Your task to perform on an android device: Open location settings Image 0: 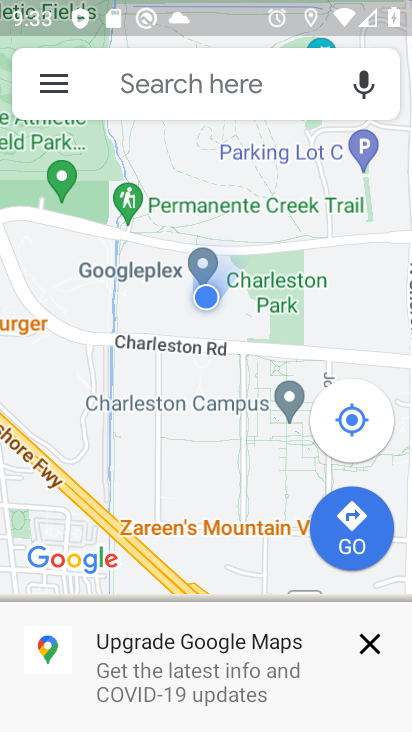
Step 0: press home button
Your task to perform on an android device: Open location settings Image 1: 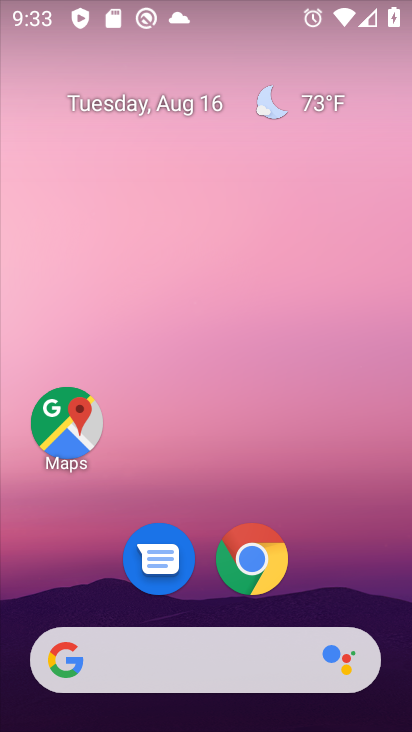
Step 1: drag from (169, 671) to (219, 87)
Your task to perform on an android device: Open location settings Image 2: 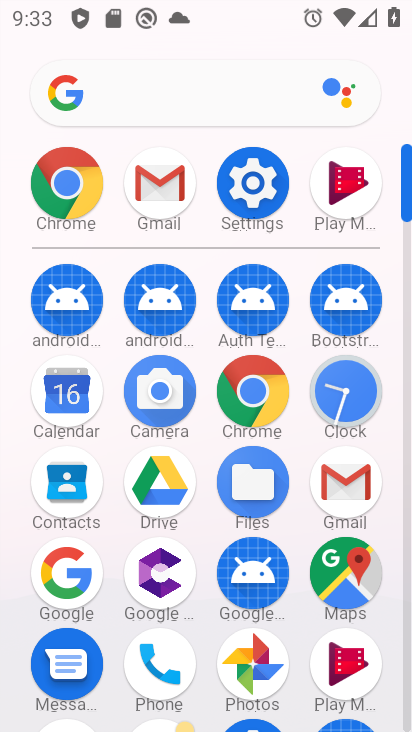
Step 2: click (252, 186)
Your task to perform on an android device: Open location settings Image 3: 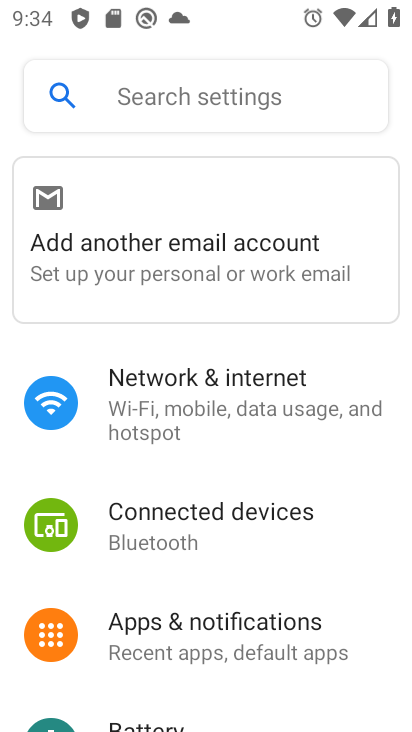
Step 3: drag from (198, 544) to (222, 430)
Your task to perform on an android device: Open location settings Image 4: 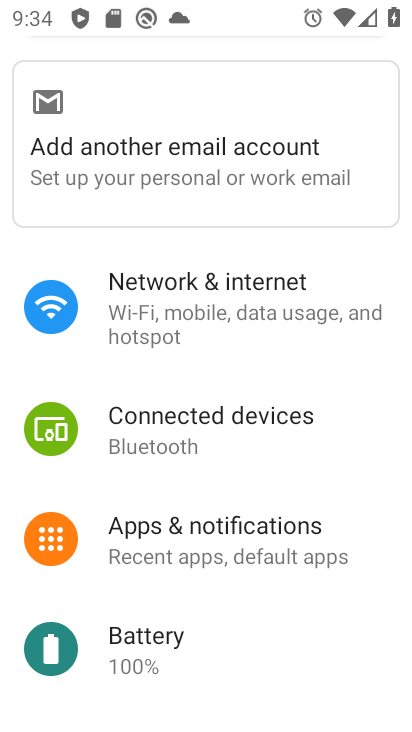
Step 4: drag from (208, 604) to (269, 446)
Your task to perform on an android device: Open location settings Image 5: 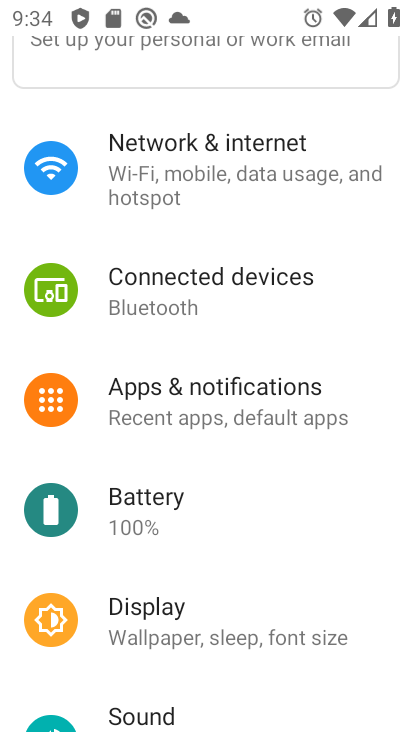
Step 5: drag from (223, 567) to (294, 407)
Your task to perform on an android device: Open location settings Image 6: 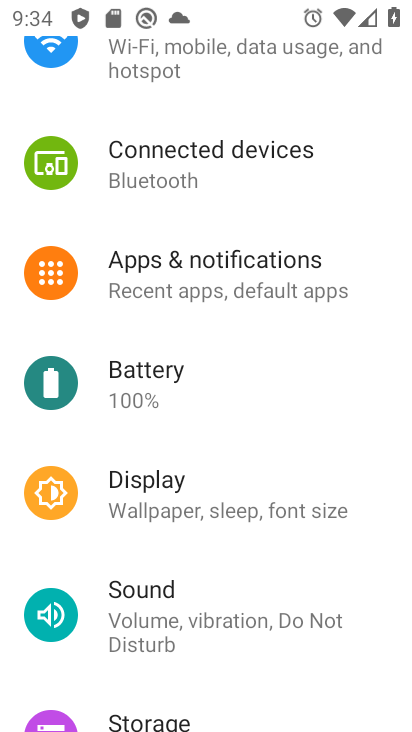
Step 6: drag from (227, 601) to (263, 455)
Your task to perform on an android device: Open location settings Image 7: 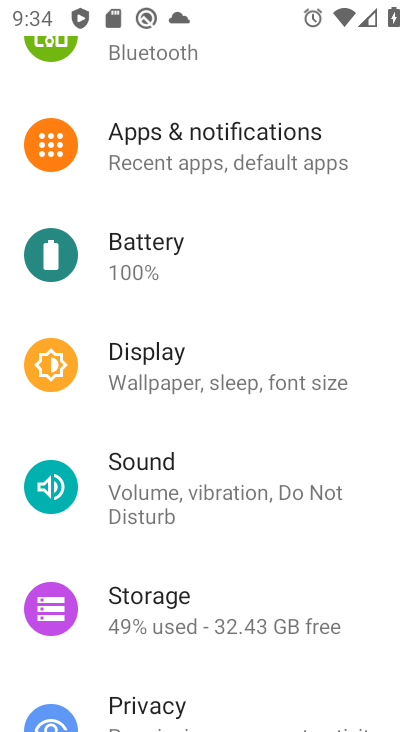
Step 7: drag from (202, 650) to (280, 505)
Your task to perform on an android device: Open location settings Image 8: 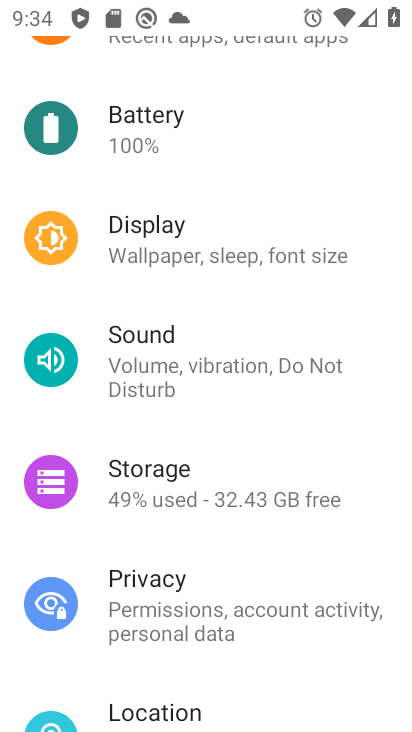
Step 8: drag from (217, 670) to (302, 516)
Your task to perform on an android device: Open location settings Image 9: 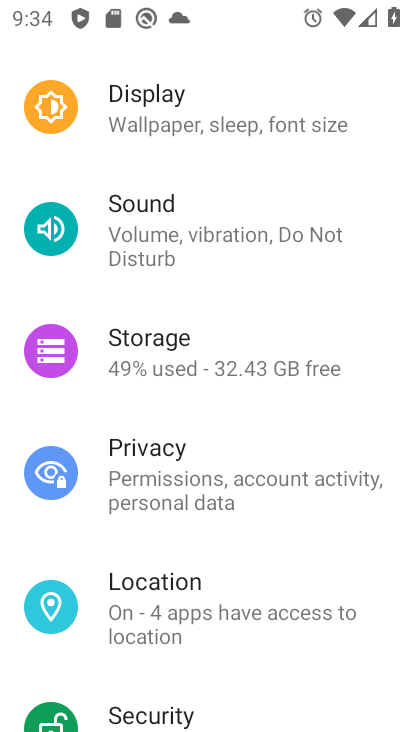
Step 9: click (177, 606)
Your task to perform on an android device: Open location settings Image 10: 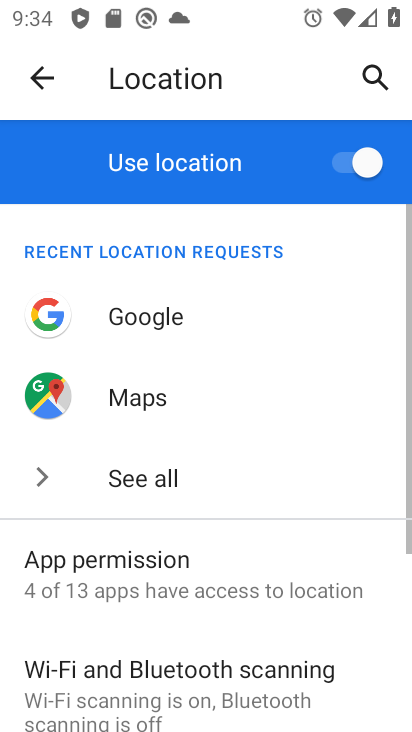
Step 10: task complete